Your task to perform on an android device: Open display settings Image 0: 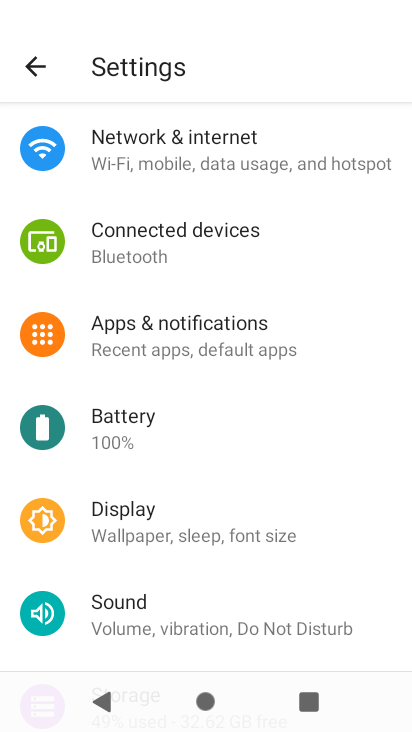
Step 0: click (209, 530)
Your task to perform on an android device: Open display settings Image 1: 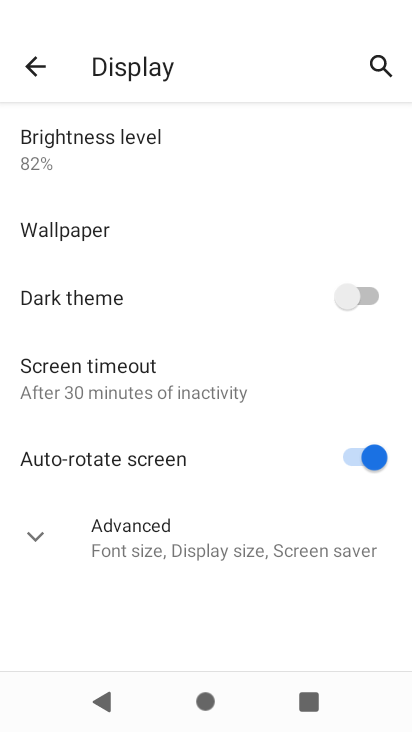
Step 1: click (34, 538)
Your task to perform on an android device: Open display settings Image 2: 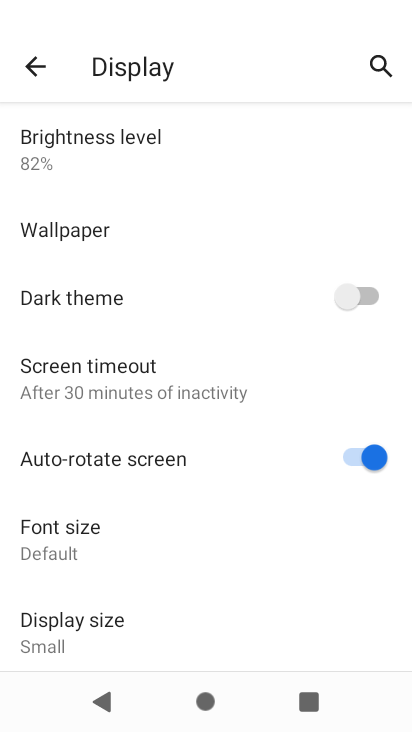
Step 2: task complete